Your task to perform on an android device: What's the weather? Image 0: 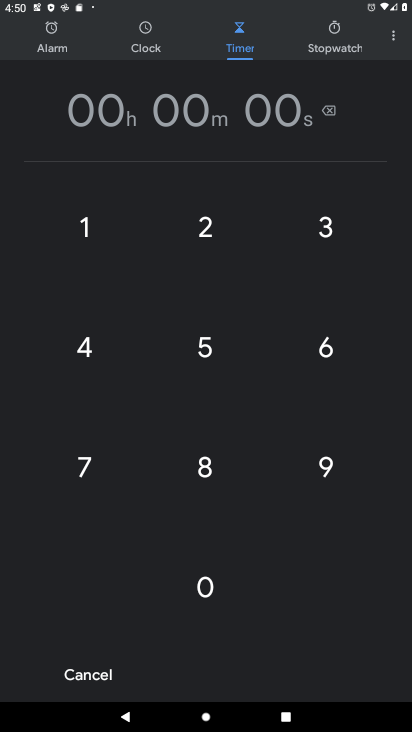
Step 0: press home button
Your task to perform on an android device: What's the weather? Image 1: 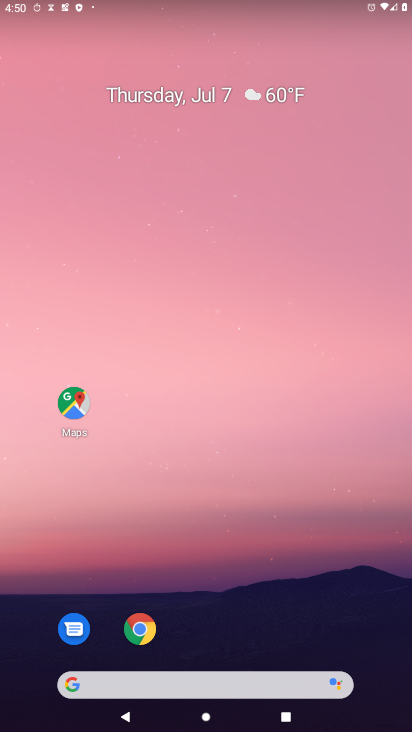
Step 1: drag from (202, 333) to (202, 72)
Your task to perform on an android device: What's the weather? Image 2: 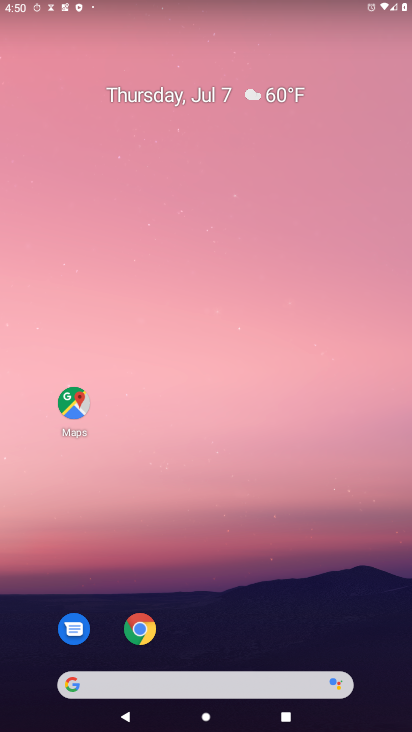
Step 2: drag from (220, 564) to (223, 114)
Your task to perform on an android device: What's the weather? Image 3: 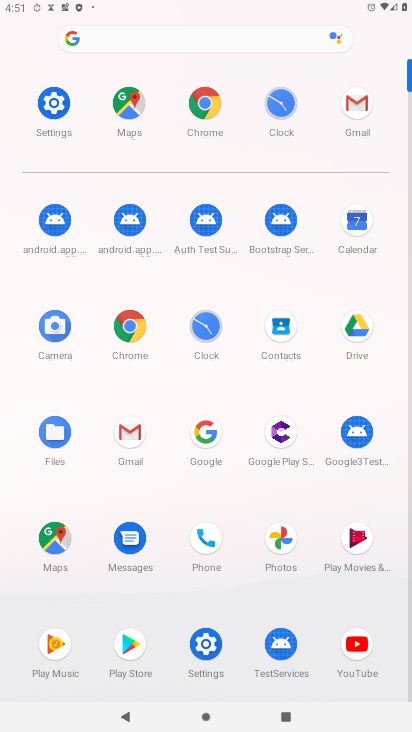
Step 3: click (204, 448)
Your task to perform on an android device: What's the weather? Image 4: 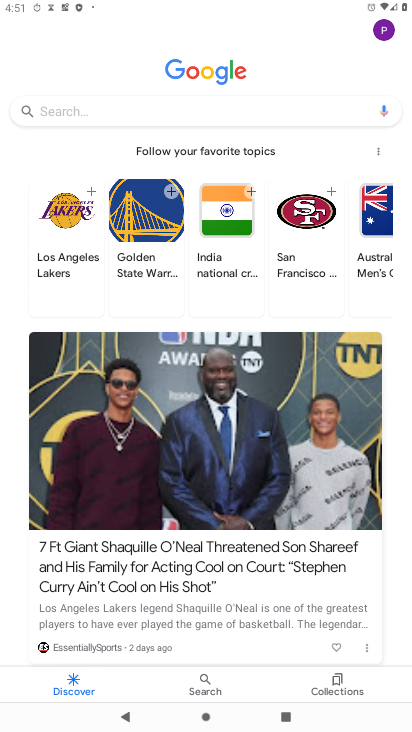
Step 4: click (169, 109)
Your task to perform on an android device: What's the weather? Image 5: 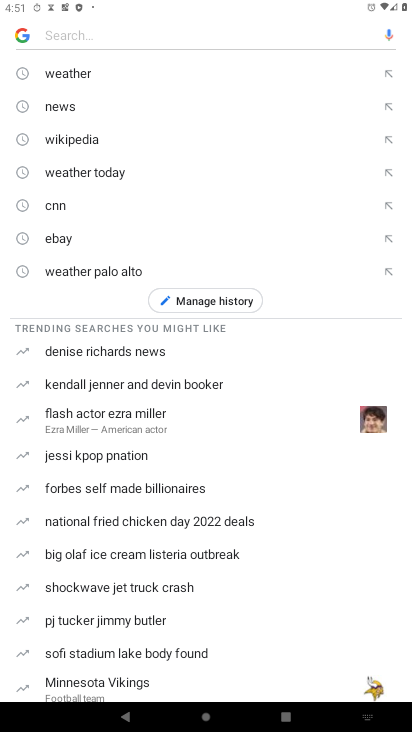
Step 5: click (69, 71)
Your task to perform on an android device: What's the weather? Image 6: 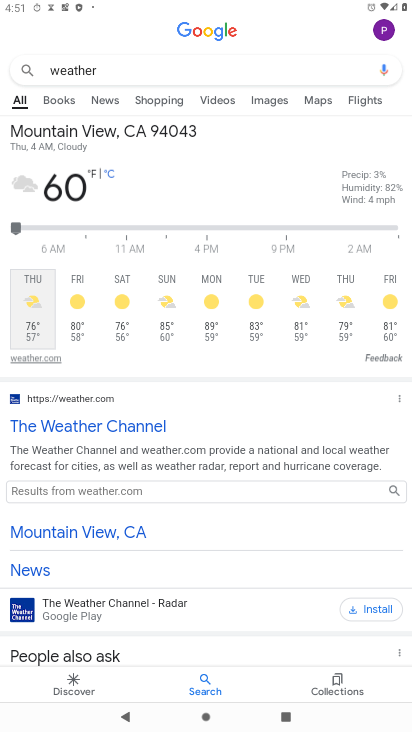
Step 6: task complete